Your task to perform on an android device: turn off sleep mode Image 0: 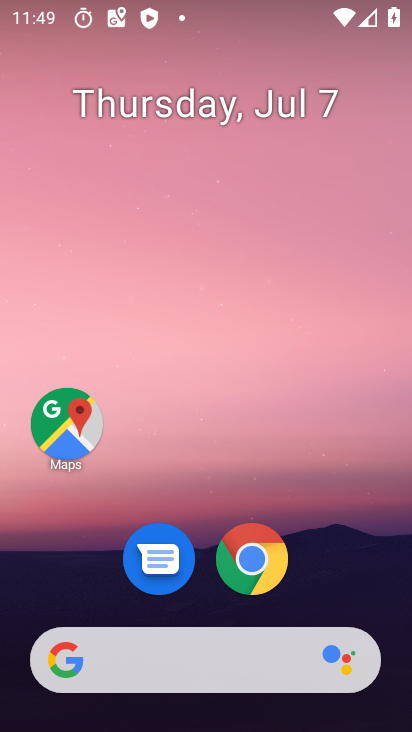
Step 0: drag from (367, 596) to (367, 138)
Your task to perform on an android device: turn off sleep mode Image 1: 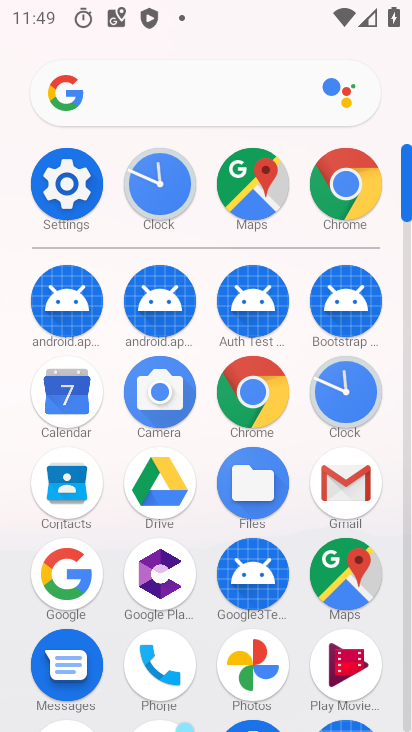
Step 1: click (87, 196)
Your task to perform on an android device: turn off sleep mode Image 2: 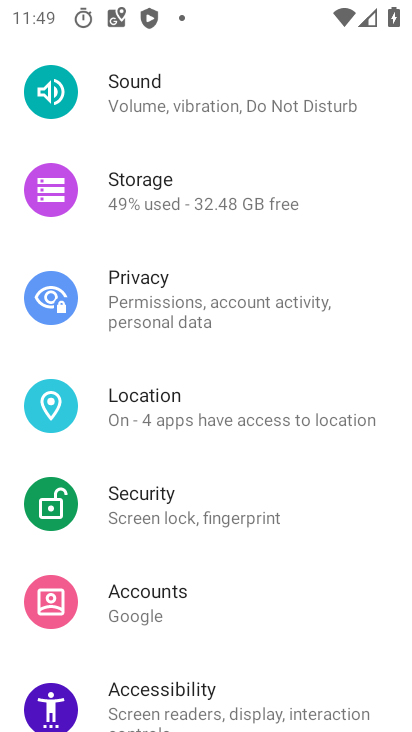
Step 2: drag from (356, 206) to (392, 409)
Your task to perform on an android device: turn off sleep mode Image 3: 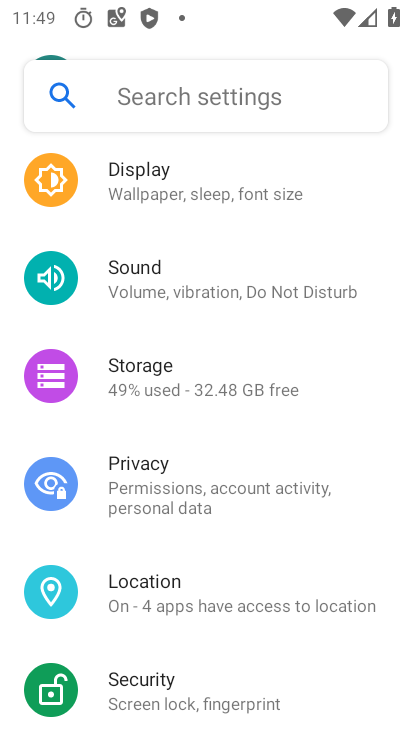
Step 3: drag from (348, 523) to (374, 346)
Your task to perform on an android device: turn off sleep mode Image 4: 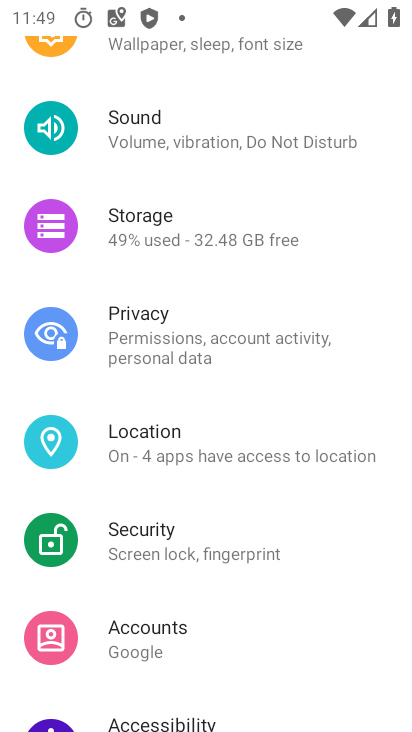
Step 4: drag from (355, 593) to (351, 327)
Your task to perform on an android device: turn off sleep mode Image 5: 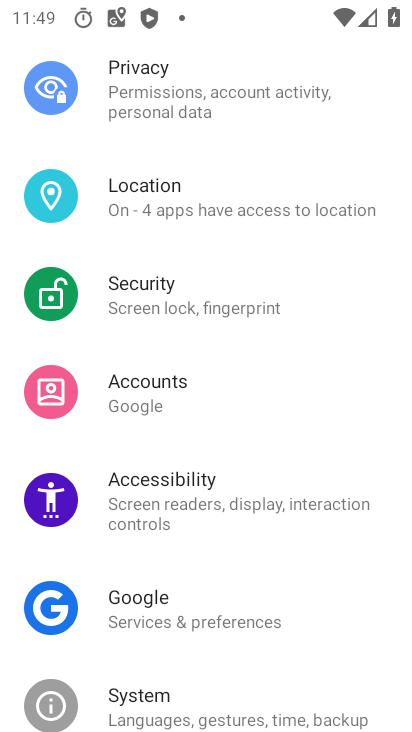
Step 5: drag from (328, 608) to (340, 325)
Your task to perform on an android device: turn off sleep mode Image 6: 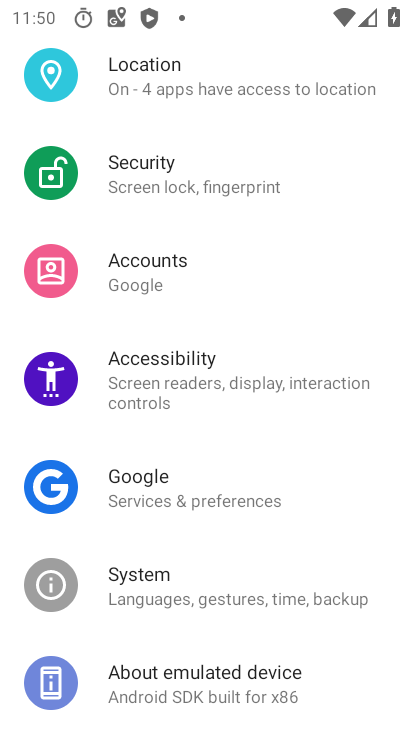
Step 6: drag from (348, 206) to (350, 475)
Your task to perform on an android device: turn off sleep mode Image 7: 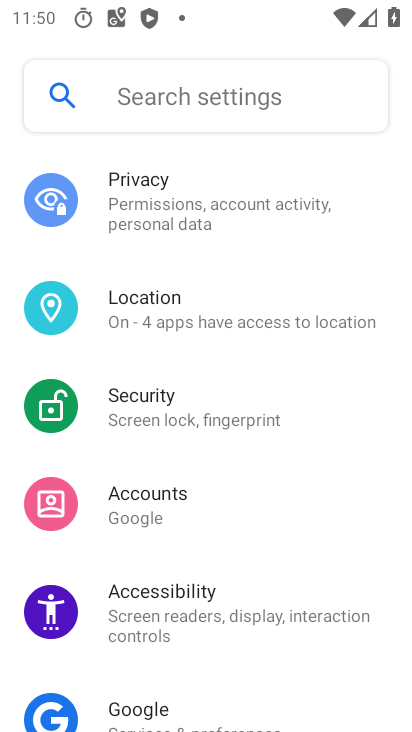
Step 7: drag from (365, 214) to (365, 425)
Your task to perform on an android device: turn off sleep mode Image 8: 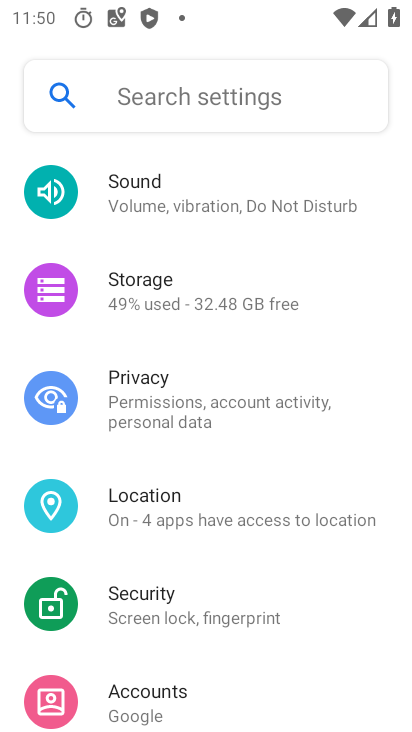
Step 8: drag from (352, 310) to (349, 242)
Your task to perform on an android device: turn off sleep mode Image 9: 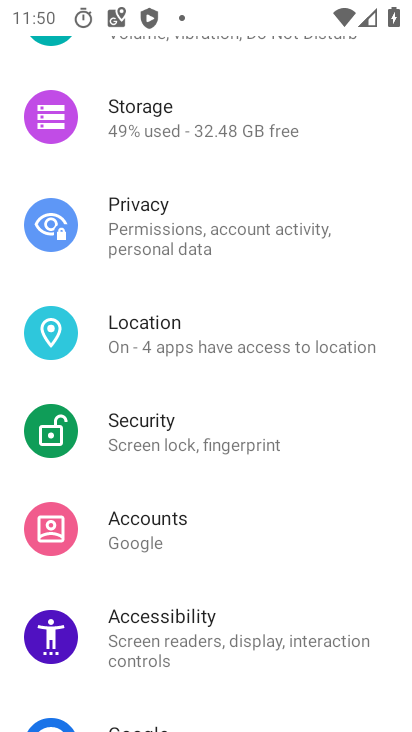
Step 9: drag from (329, 590) to (350, 357)
Your task to perform on an android device: turn off sleep mode Image 10: 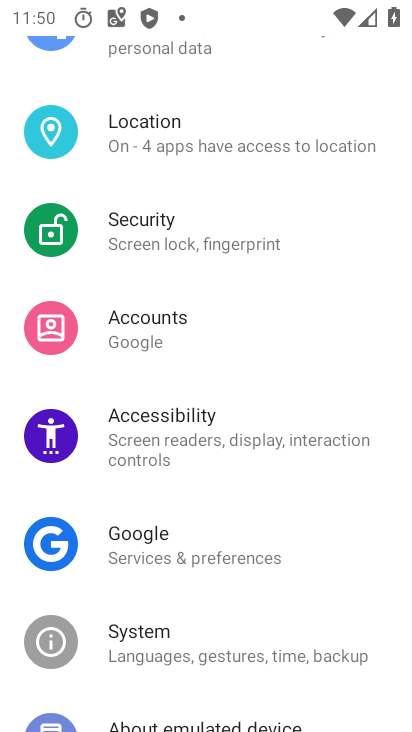
Step 10: drag from (351, 544) to (352, 245)
Your task to perform on an android device: turn off sleep mode Image 11: 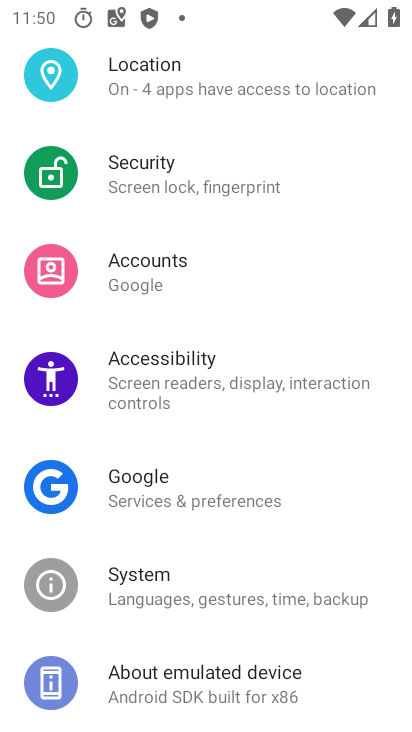
Step 11: drag from (346, 230) to (327, 513)
Your task to perform on an android device: turn off sleep mode Image 12: 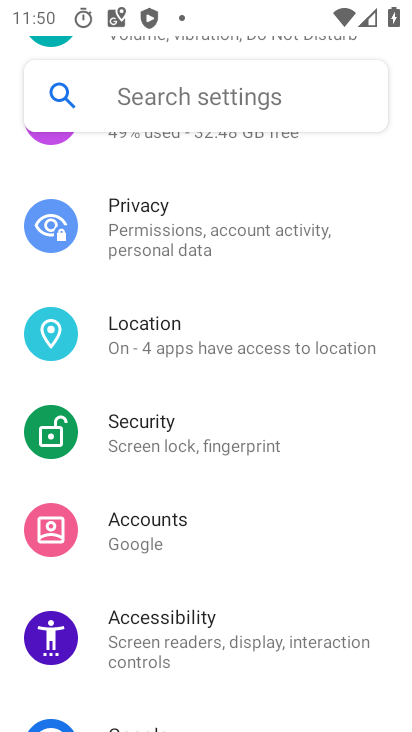
Step 12: drag from (354, 266) to (324, 491)
Your task to perform on an android device: turn off sleep mode Image 13: 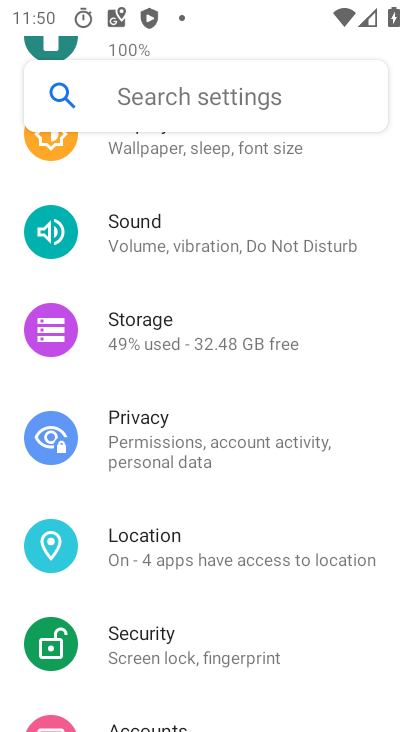
Step 13: drag from (344, 193) to (334, 428)
Your task to perform on an android device: turn off sleep mode Image 14: 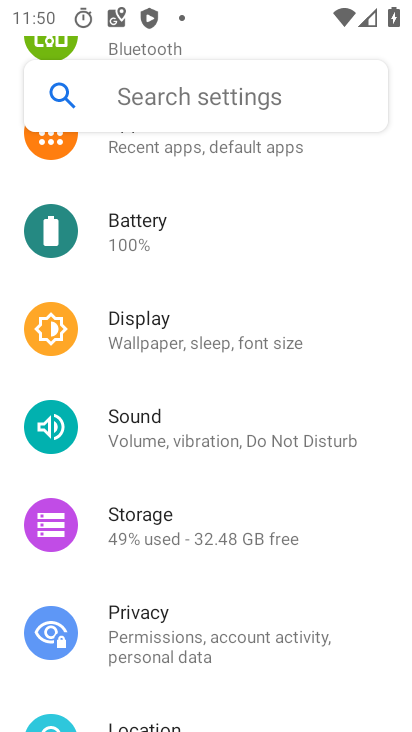
Step 14: click (182, 328)
Your task to perform on an android device: turn off sleep mode Image 15: 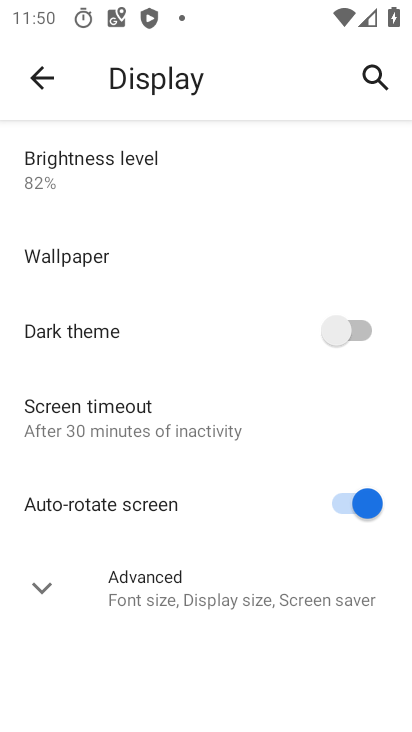
Step 15: click (241, 581)
Your task to perform on an android device: turn off sleep mode Image 16: 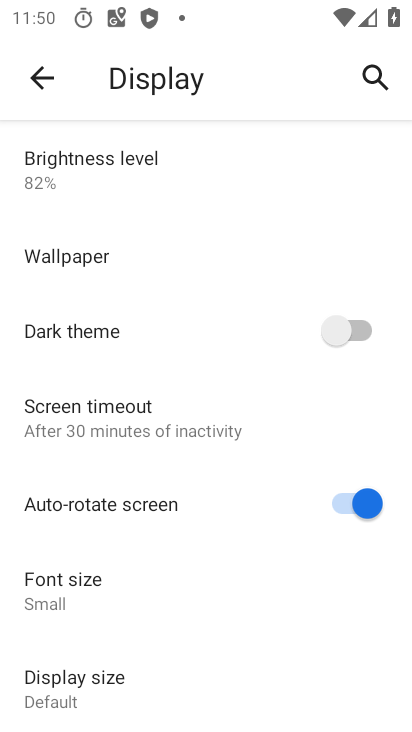
Step 16: task complete